Your task to perform on an android device: Go to eBay Image 0: 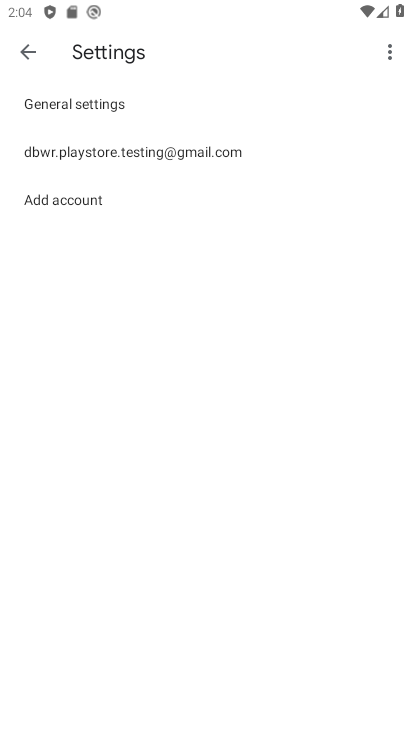
Step 0: press home button
Your task to perform on an android device: Go to eBay Image 1: 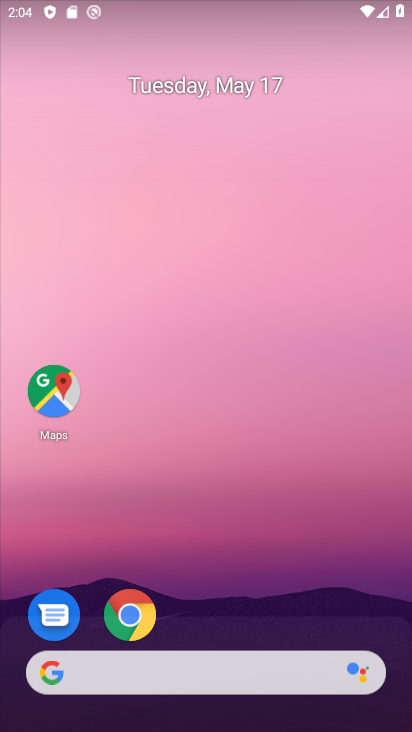
Step 1: click (128, 615)
Your task to perform on an android device: Go to eBay Image 2: 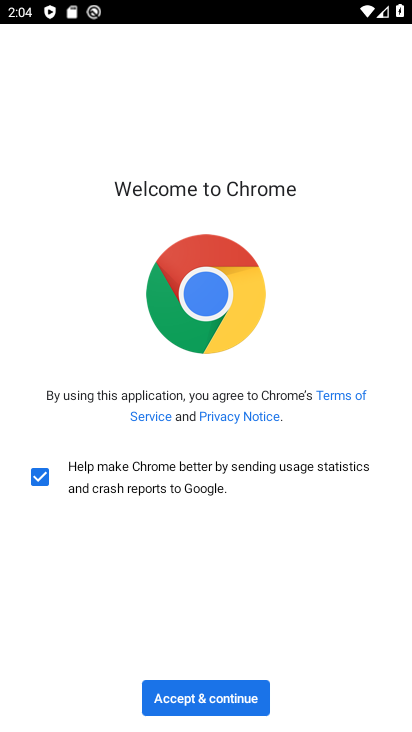
Step 2: click (209, 702)
Your task to perform on an android device: Go to eBay Image 3: 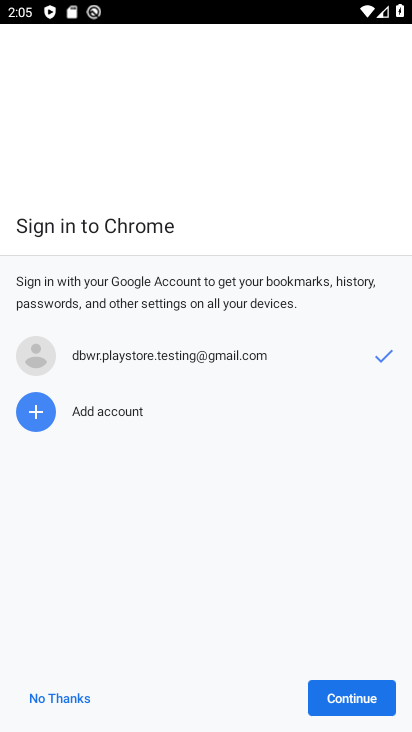
Step 3: click (372, 692)
Your task to perform on an android device: Go to eBay Image 4: 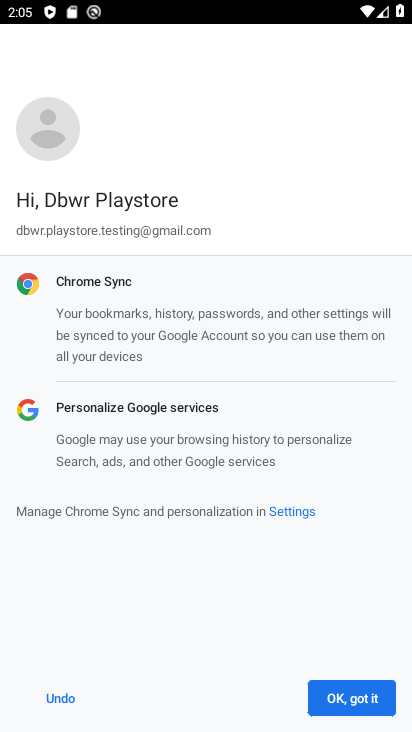
Step 4: click (372, 692)
Your task to perform on an android device: Go to eBay Image 5: 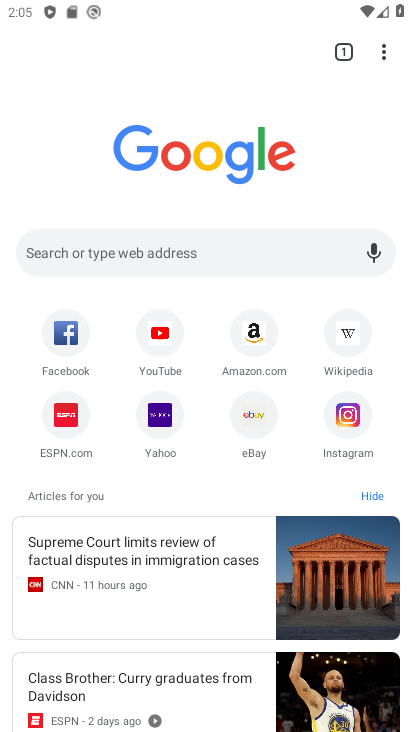
Step 5: click (255, 418)
Your task to perform on an android device: Go to eBay Image 6: 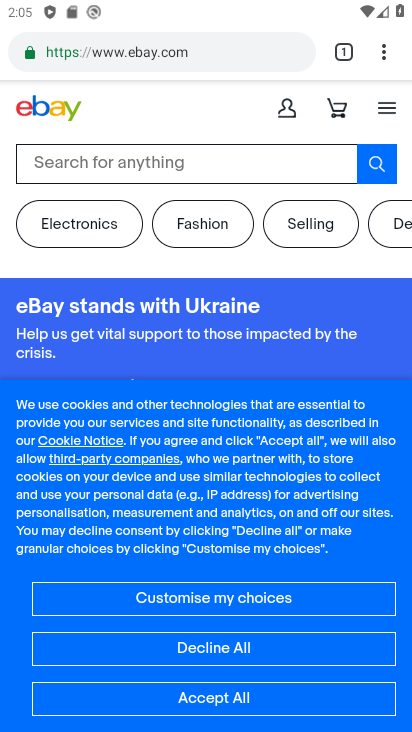
Step 6: click (221, 704)
Your task to perform on an android device: Go to eBay Image 7: 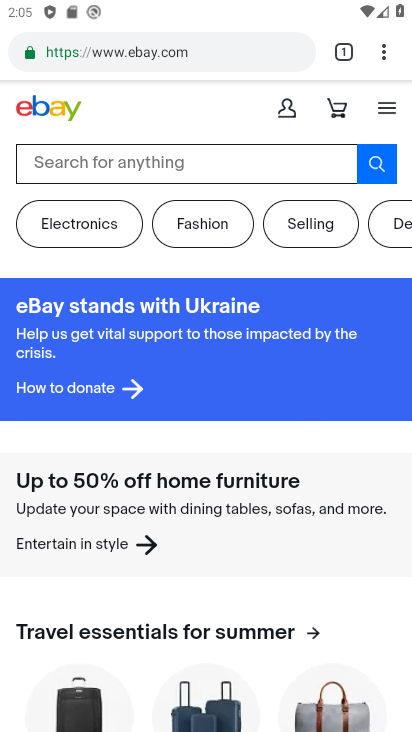
Step 7: task complete